Your task to perform on an android device: turn off location history Image 0: 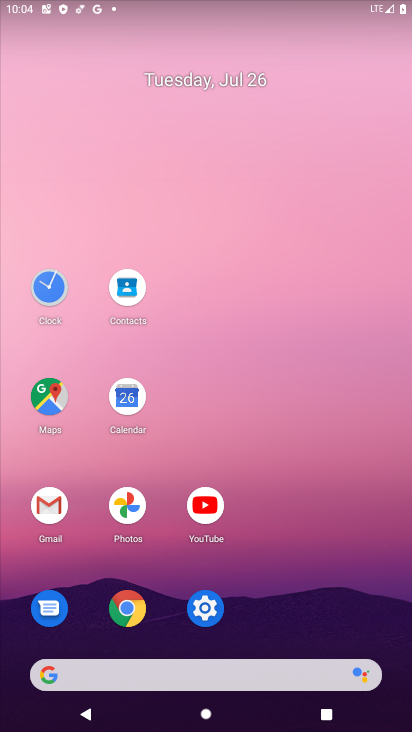
Step 0: click (38, 405)
Your task to perform on an android device: turn off location history Image 1: 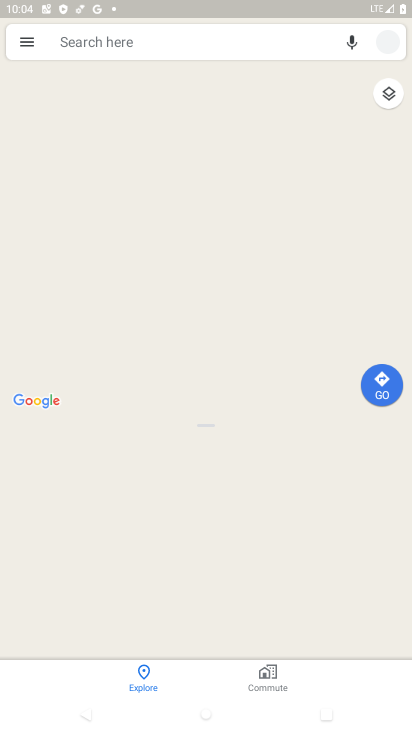
Step 1: click (180, 115)
Your task to perform on an android device: turn off location history Image 2: 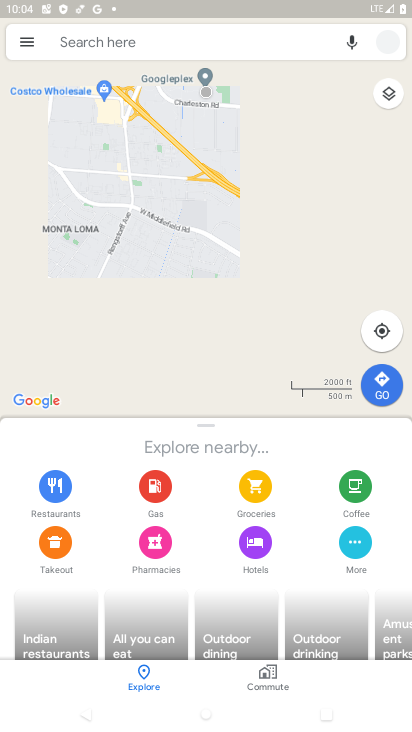
Step 2: click (30, 39)
Your task to perform on an android device: turn off location history Image 3: 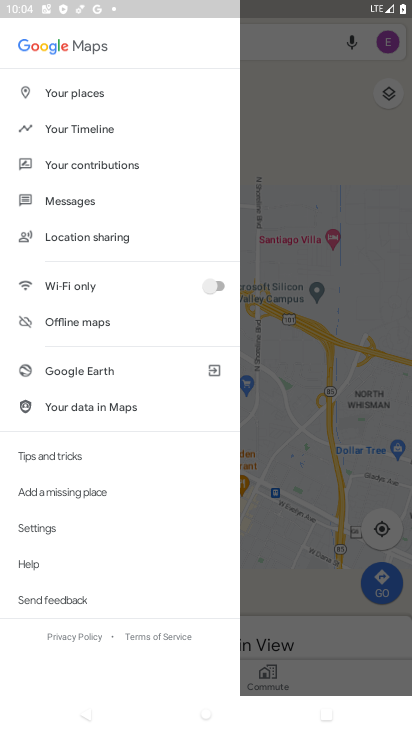
Step 3: click (78, 125)
Your task to perform on an android device: turn off location history Image 4: 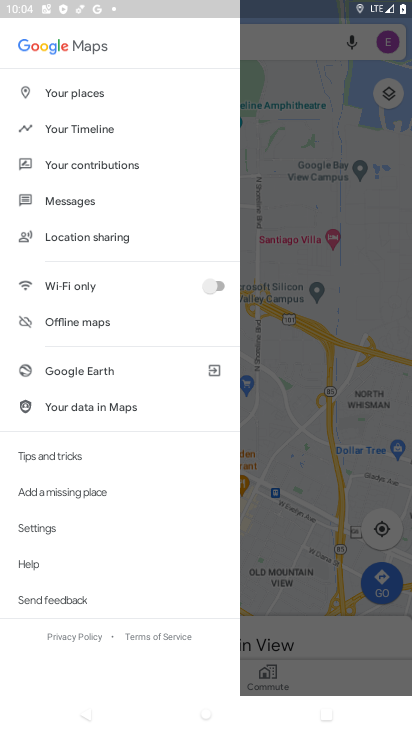
Step 4: click (84, 119)
Your task to perform on an android device: turn off location history Image 5: 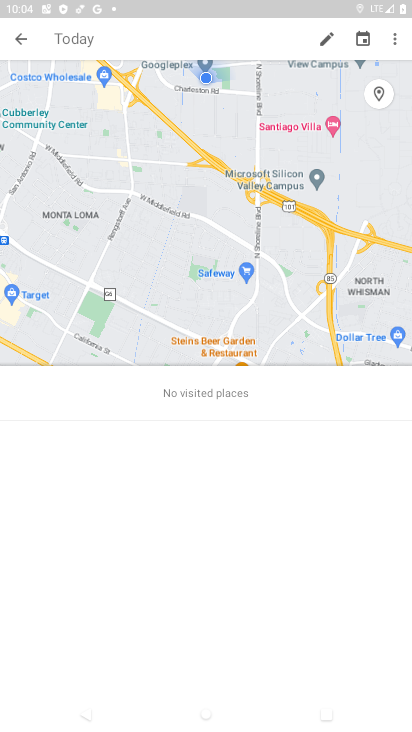
Step 5: click (405, 37)
Your task to perform on an android device: turn off location history Image 6: 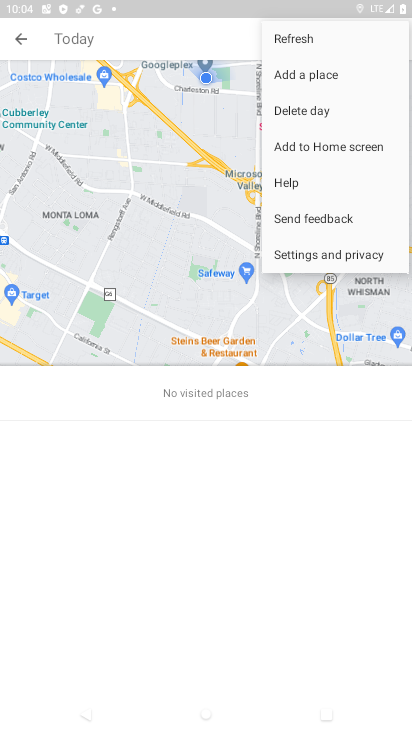
Step 6: click (325, 248)
Your task to perform on an android device: turn off location history Image 7: 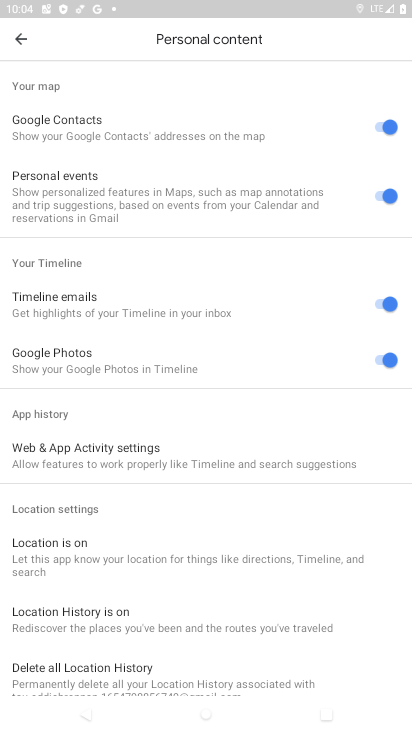
Step 7: click (92, 622)
Your task to perform on an android device: turn off location history Image 8: 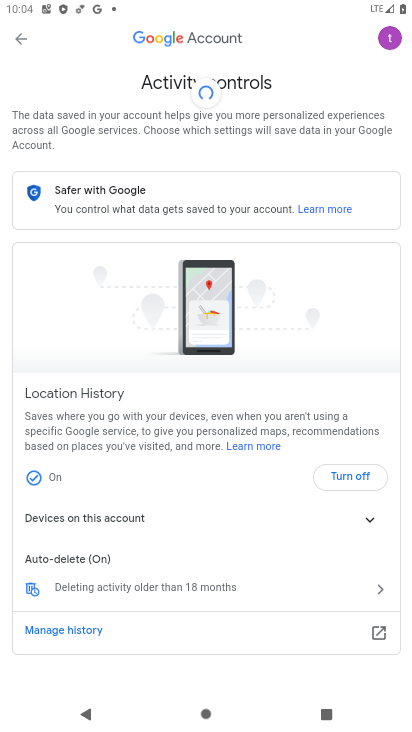
Step 8: click (354, 471)
Your task to perform on an android device: turn off location history Image 9: 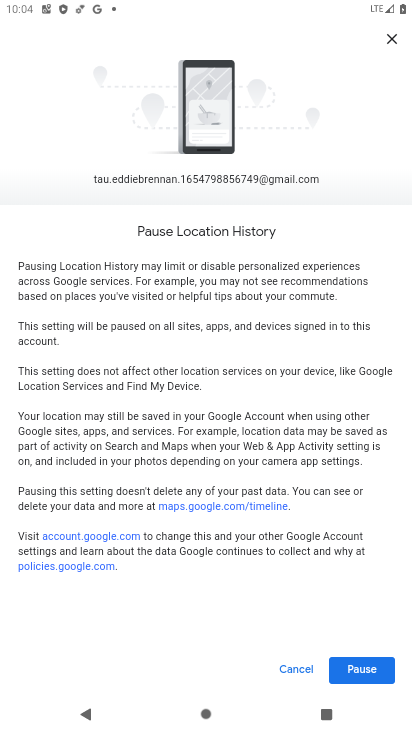
Step 9: click (360, 675)
Your task to perform on an android device: turn off location history Image 10: 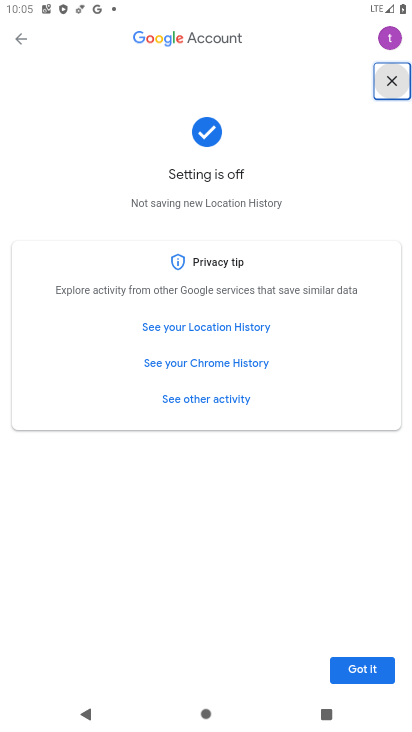
Step 10: click (352, 667)
Your task to perform on an android device: turn off location history Image 11: 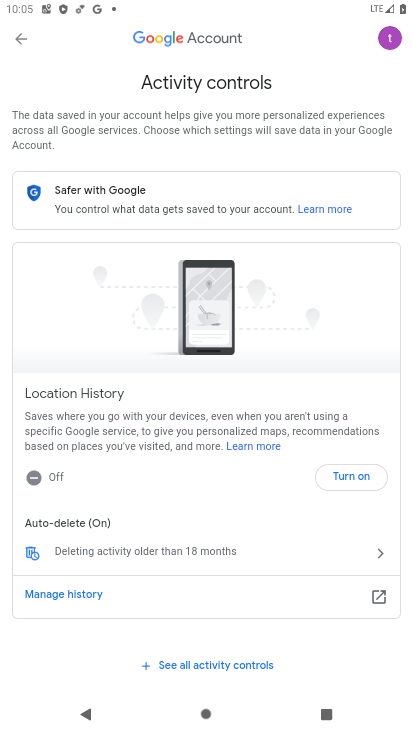
Step 11: task complete